Your task to perform on an android device: read, delete, or share a saved page in the chrome app Image 0: 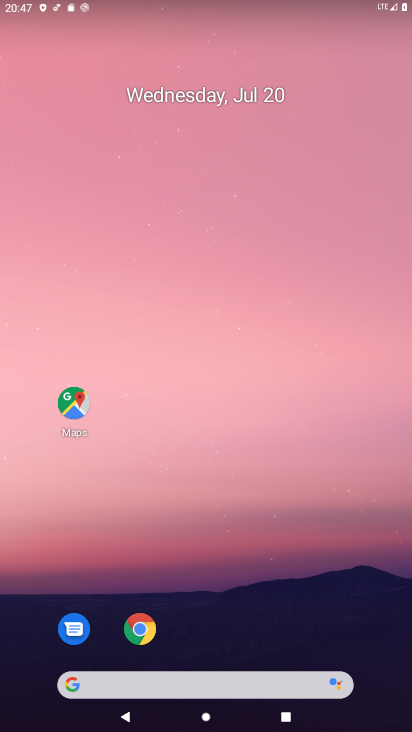
Step 0: click (138, 618)
Your task to perform on an android device: read, delete, or share a saved page in the chrome app Image 1: 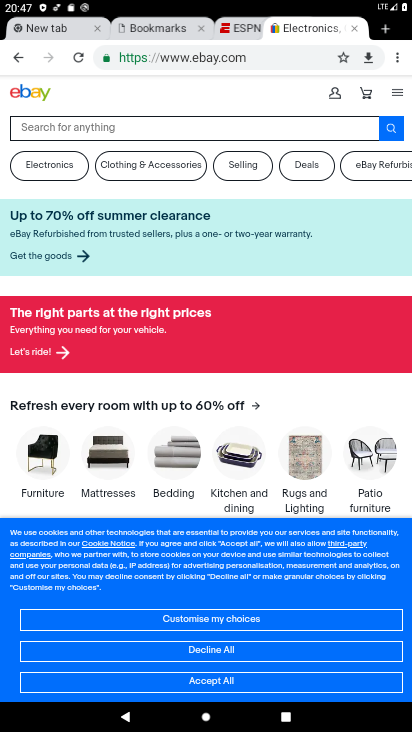
Step 1: click (391, 66)
Your task to perform on an android device: read, delete, or share a saved page in the chrome app Image 2: 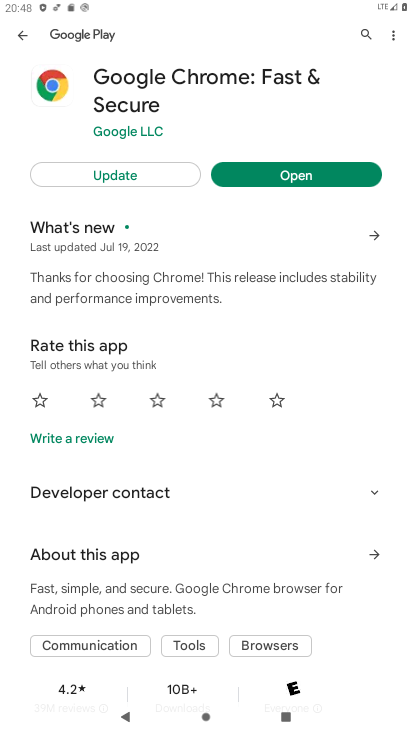
Step 2: click (283, 176)
Your task to perform on an android device: read, delete, or share a saved page in the chrome app Image 3: 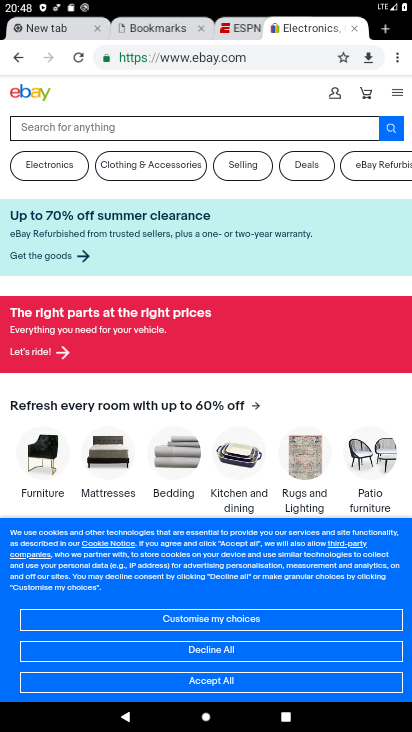
Step 3: click (395, 49)
Your task to perform on an android device: read, delete, or share a saved page in the chrome app Image 4: 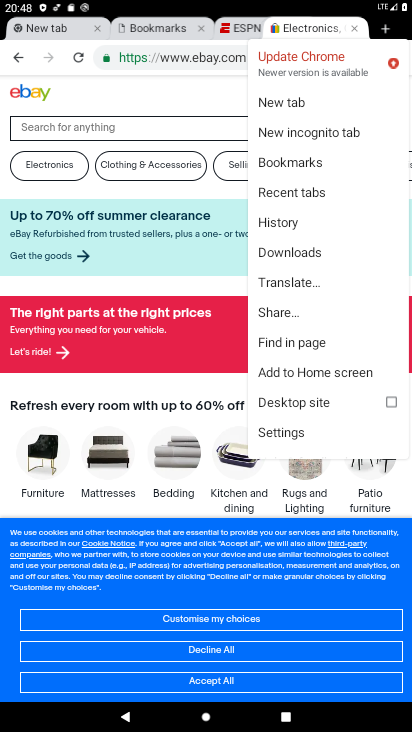
Step 4: click (312, 258)
Your task to perform on an android device: read, delete, or share a saved page in the chrome app Image 5: 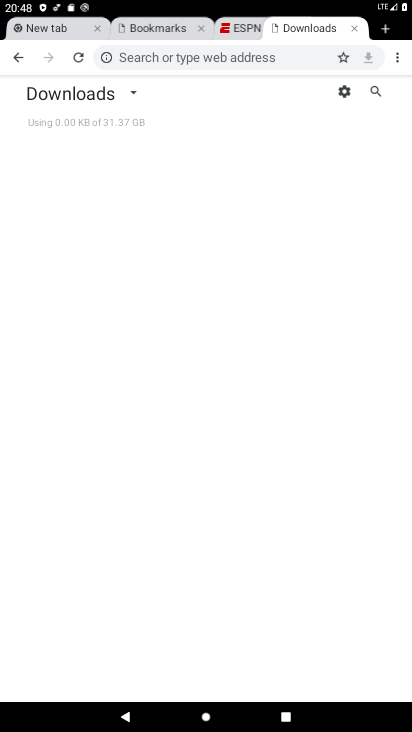
Step 5: click (111, 88)
Your task to perform on an android device: read, delete, or share a saved page in the chrome app Image 6: 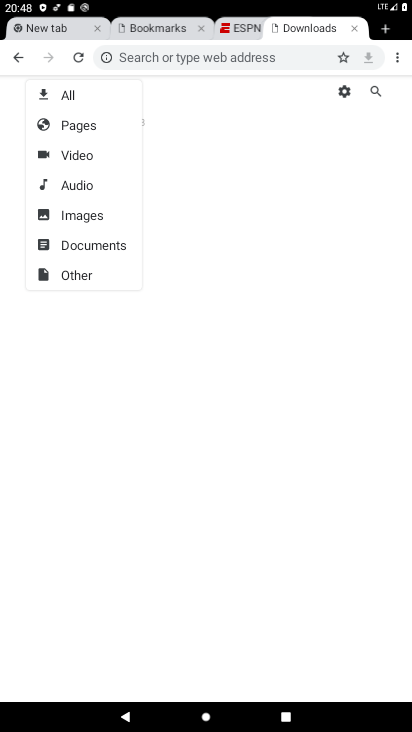
Step 6: click (80, 128)
Your task to perform on an android device: read, delete, or share a saved page in the chrome app Image 7: 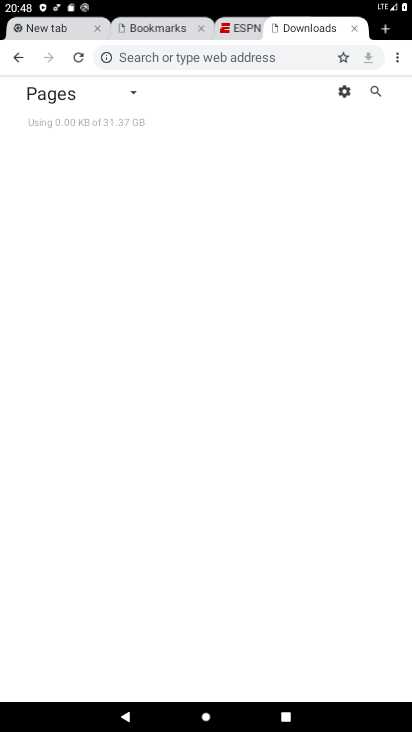
Step 7: task complete